Your task to perform on an android device: Go to internet settings Image 0: 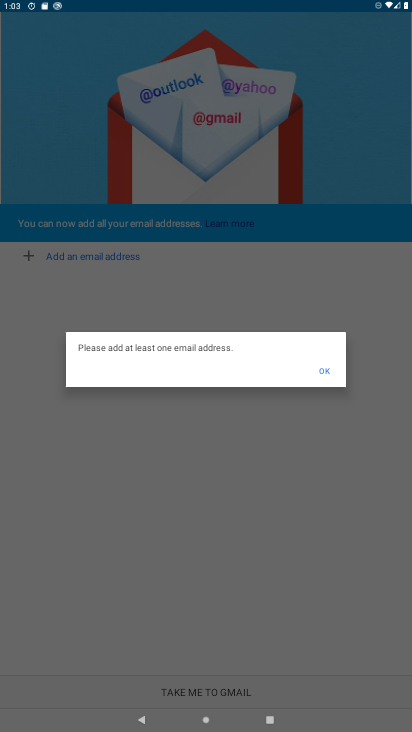
Step 0: press home button
Your task to perform on an android device: Go to internet settings Image 1: 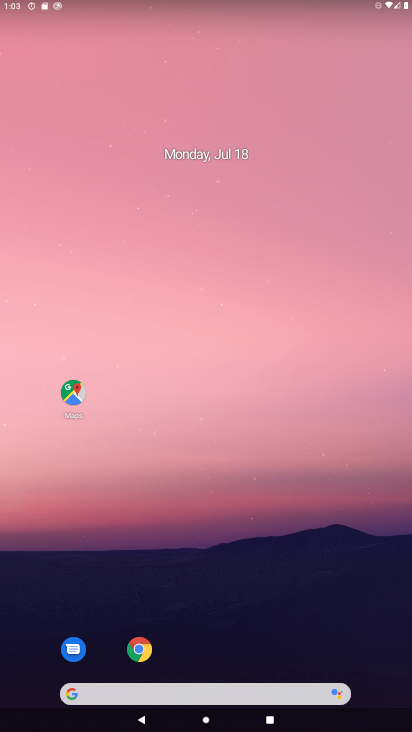
Step 1: drag from (0, 683) to (162, 288)
Your task to perform on an android device: Go to internet settings Image 2: 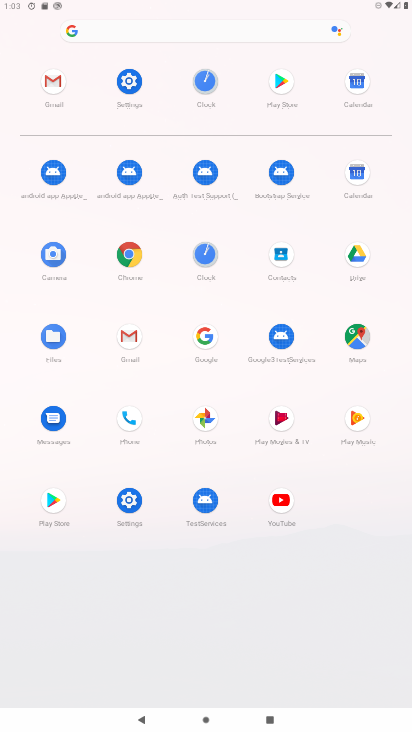
Step 2: click (121, 489)
Your task to perform on an android device: Go to internet settings Image 3: 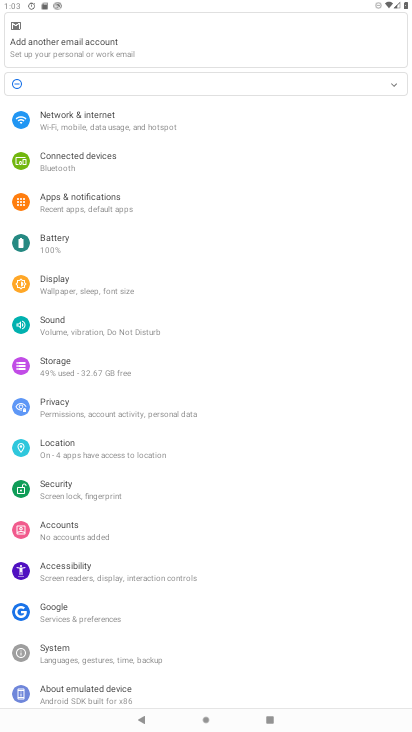
Step 3: click (109, 122)
Your task to perform on an android device: Go to internet settings Image 4: 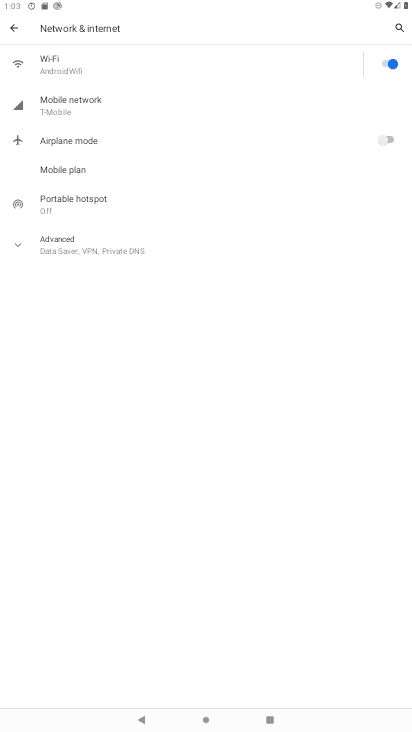
Step 4: task complete